Your task to perform on an android device: change the clock display to show seconds Image 0: 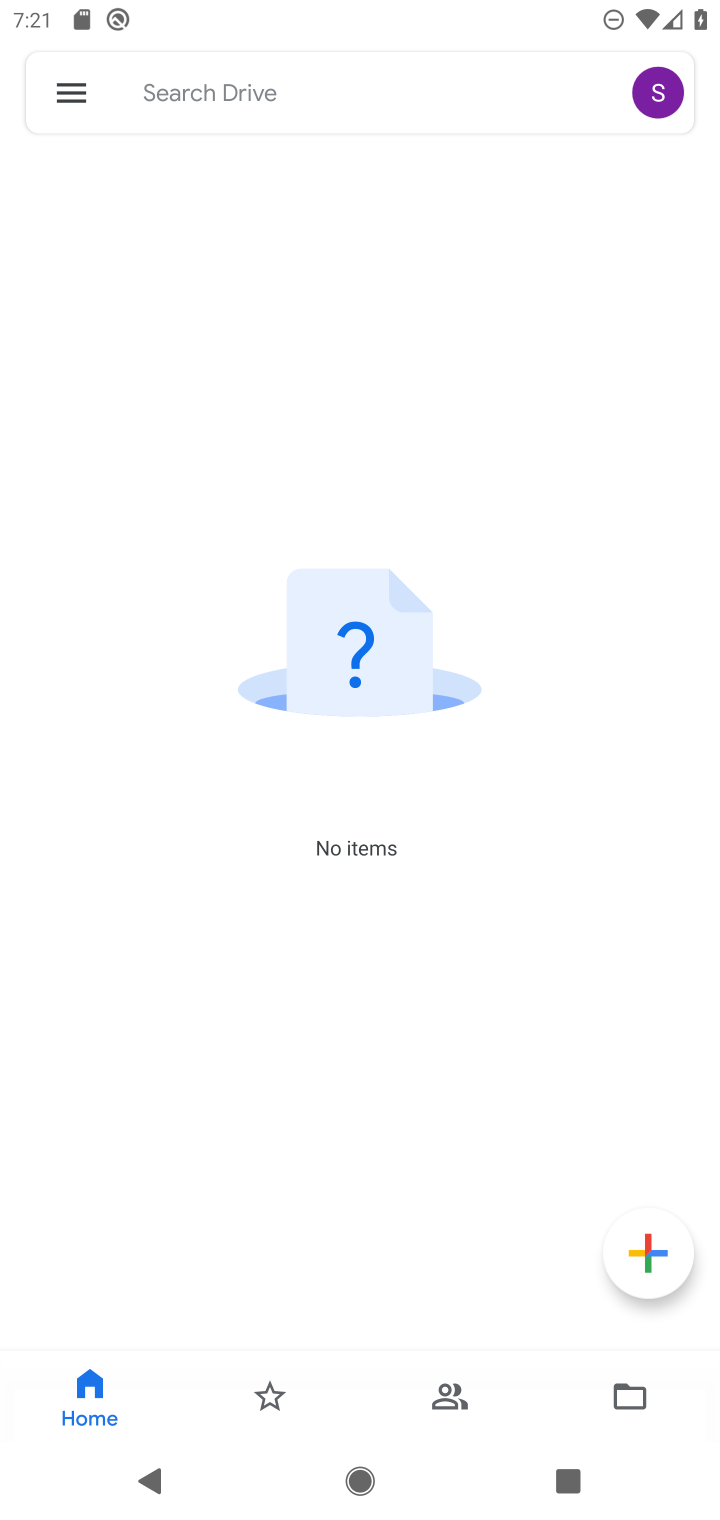
Step 0: press home button
Your task to perform on an android device: change the clock display to show seconds Image 1: 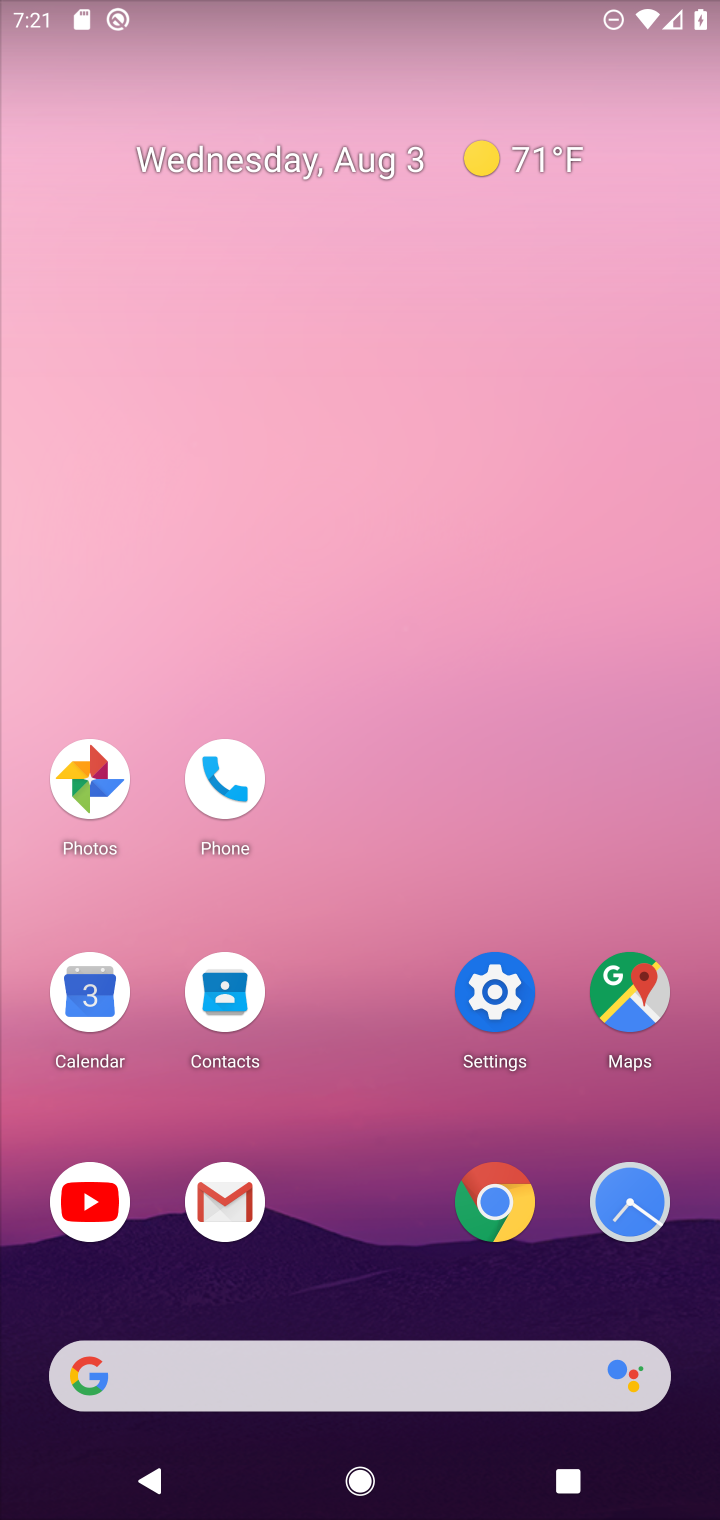
Step 1: click (620, 1200)
Your task to perform on an android device: change the clock display to show seconds Image 2: 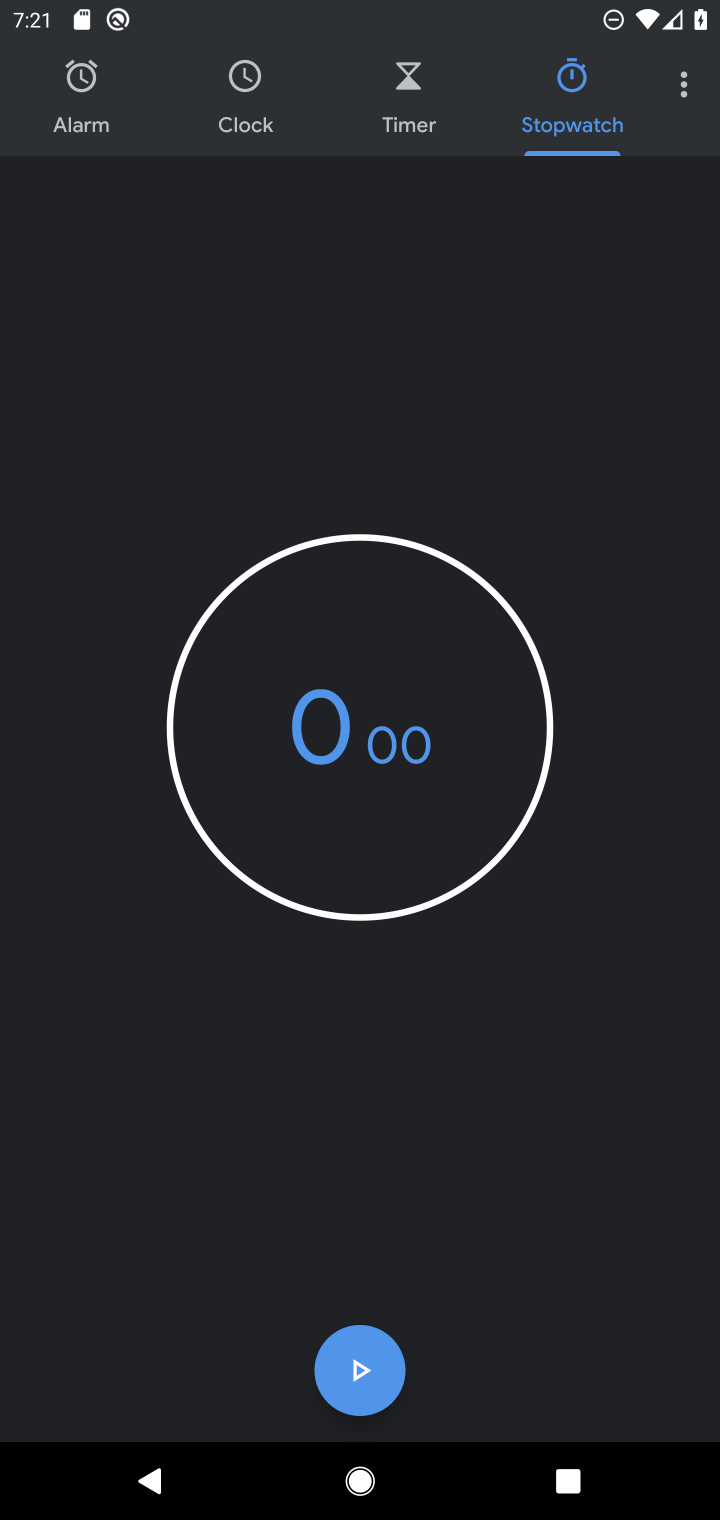
Step 2: click (686, 83)
Your task to perform on an android device: change the clock display to show seconds Image 3: 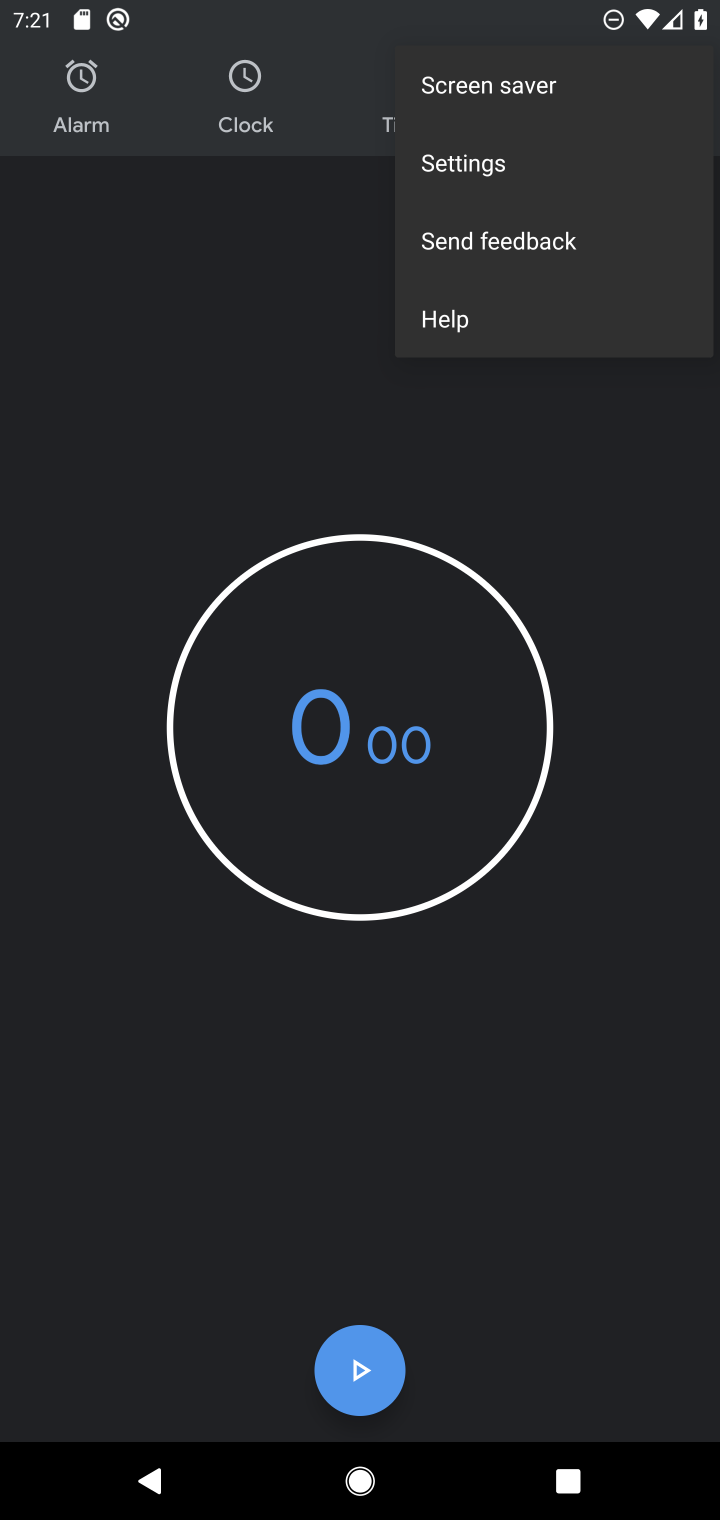
Step 3: click (462, 158)
Your task to perform on an android device: change the clock display to show seconds Image 4: 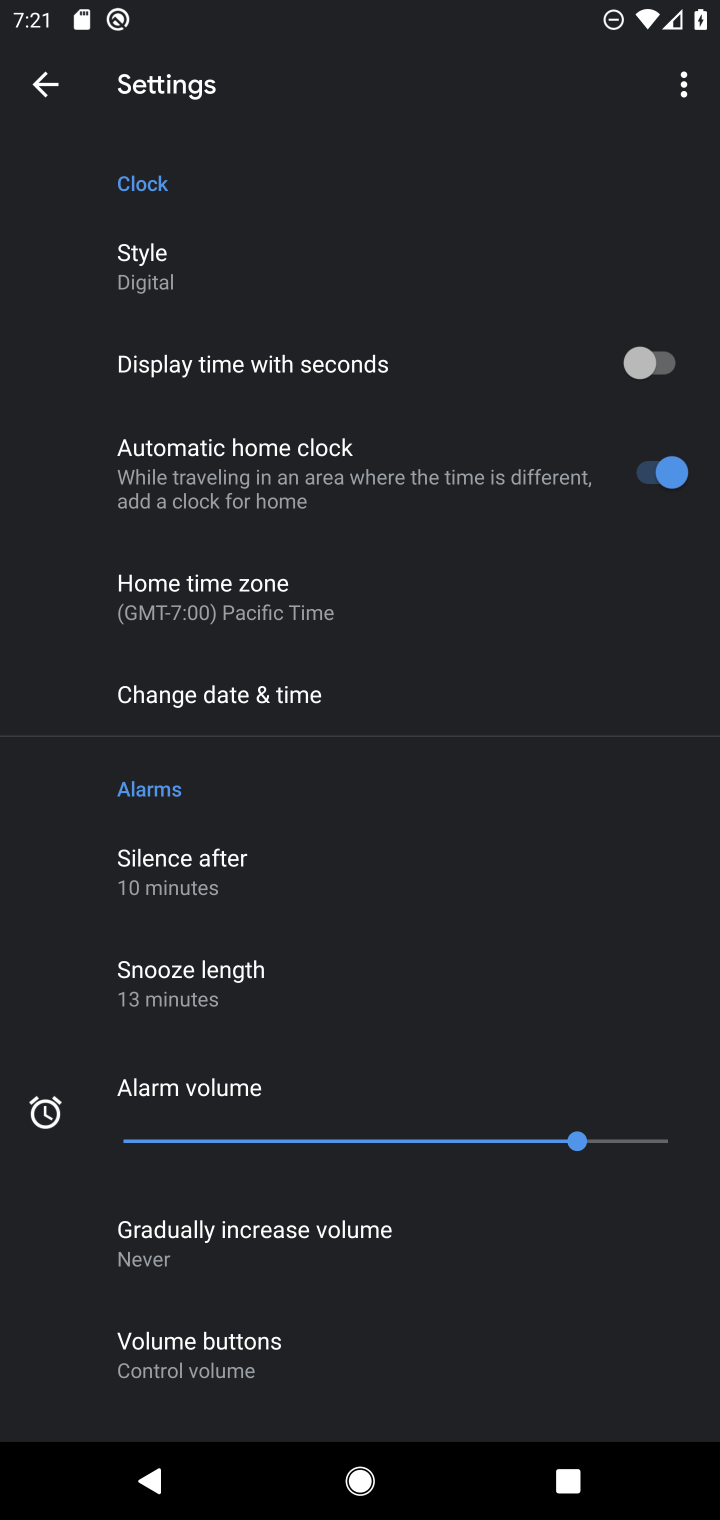
Step 4: click (630, 365)
Your task to perform on an android device: change the clock display to show seconds Image 5: 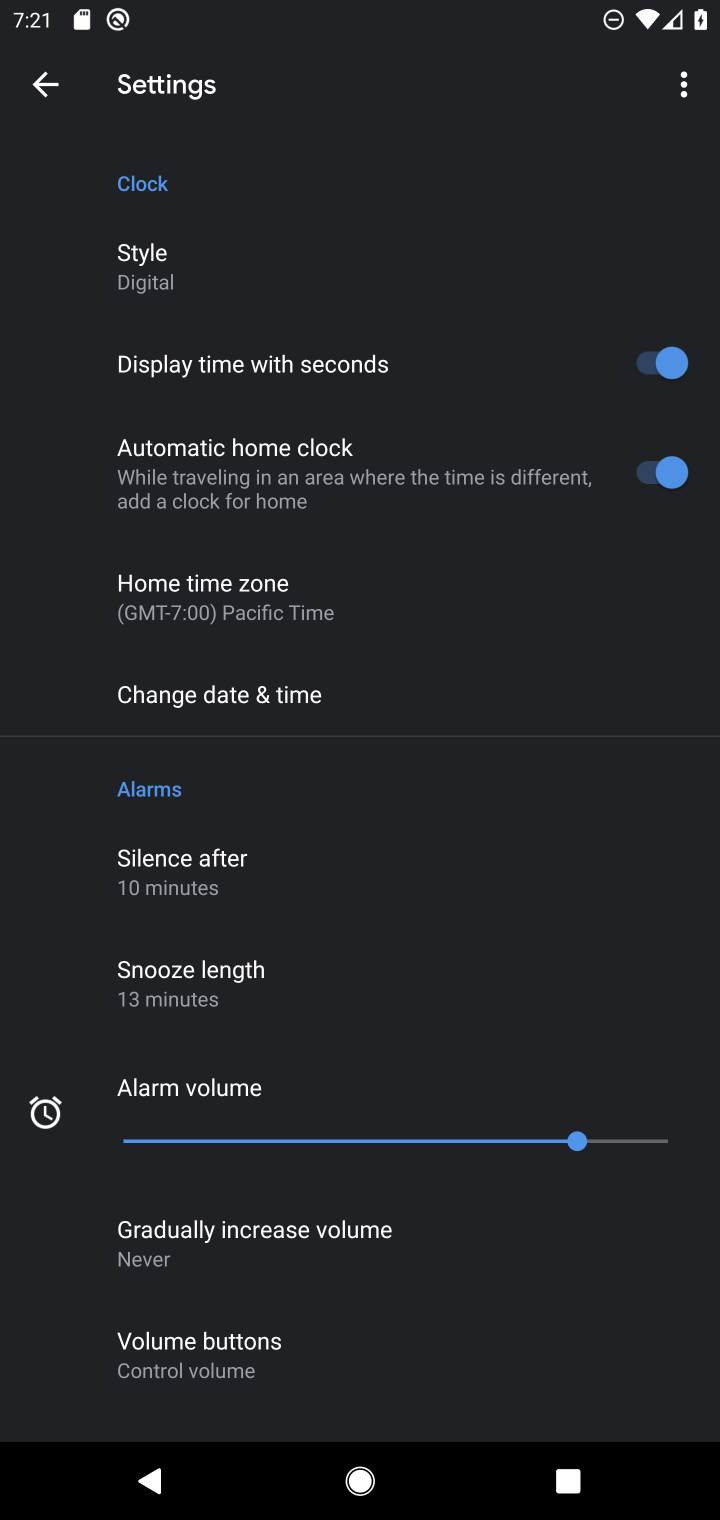
Step 5: task complete